Your task to perform on an android device: toggle pop-ups in chrome Image 0: 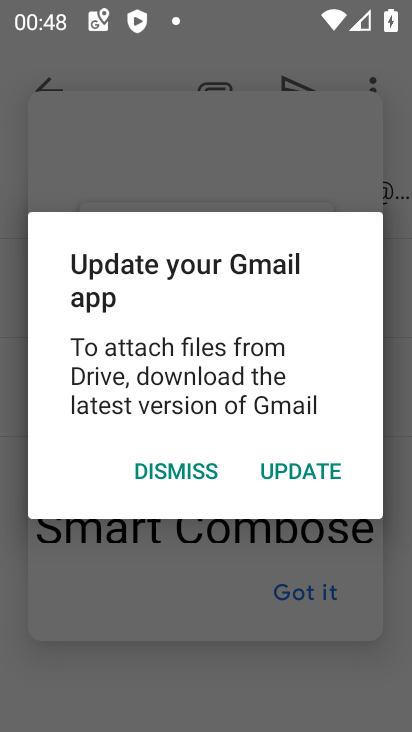
Step 0: press home button
Your task to perform on an android device: toggle pop-ups in chrome Image 1: 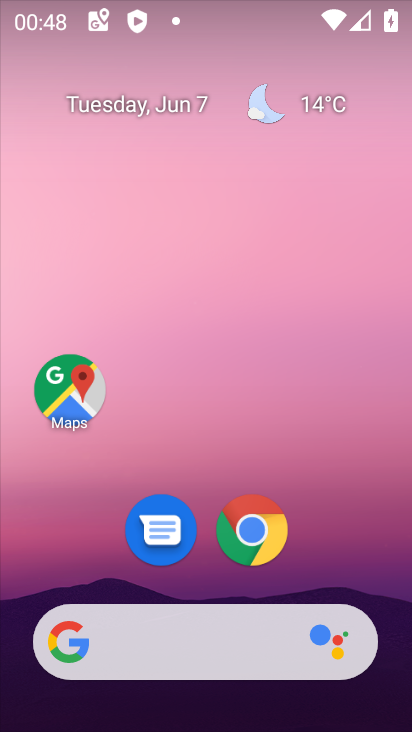
Step 1: click (254, 522)
Your task to perform on an android device: toggle pop-ups in chrome Image 2: 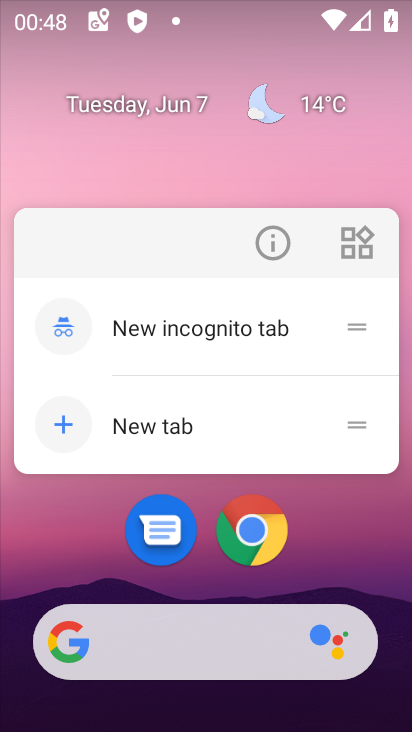
Step 2: click (264, 525)
Your task to perform on an android device: toggle pop-ups in chrome Image 3: 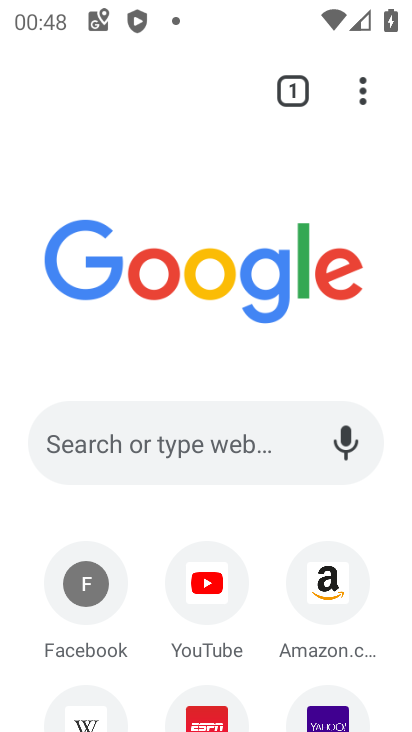
Step 3: click (369, 94)
Your task to perform on an android device: toggle pop-ups in chrome Image 4: 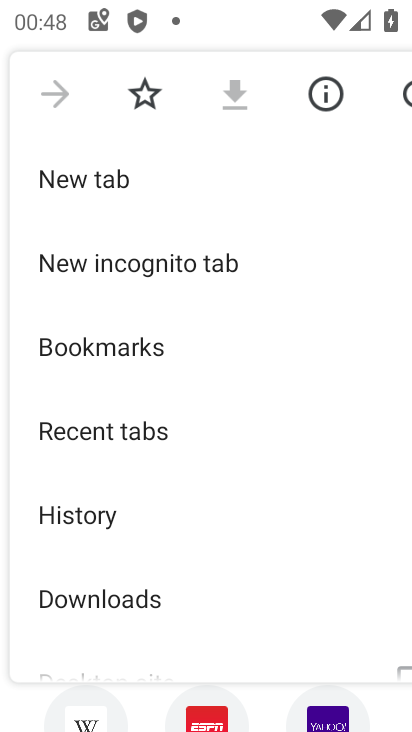
Step 4: drag from (198, 588) to (234, 280)
Your task to perform on an android device: toggle pop-ups in chrome Image 5: 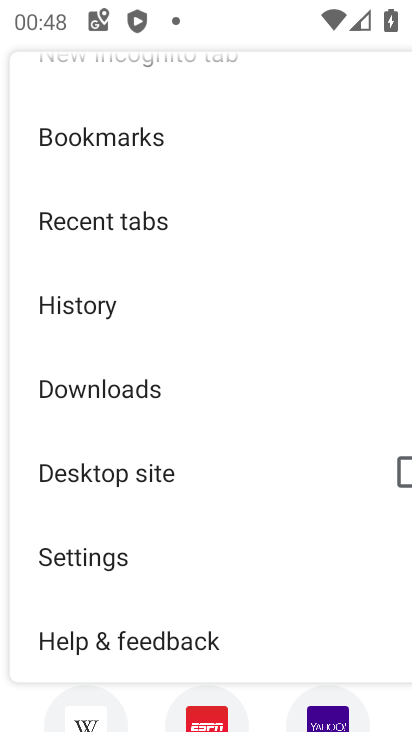
Step 5: click (99, 549)
Your task to perform on an android device: toggle pop-ups in chrome Image 6: 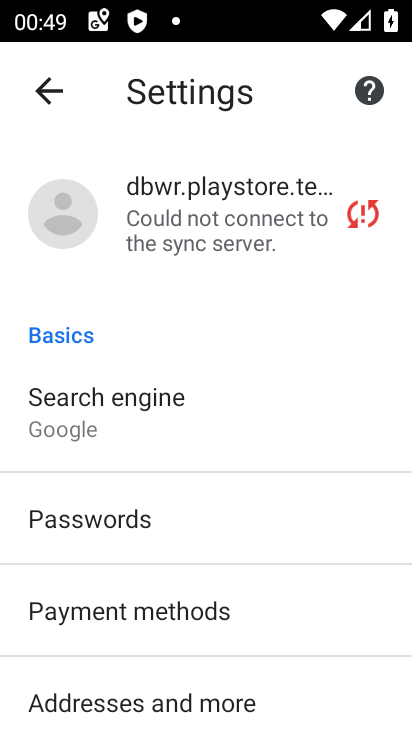
Step 6: drag from (181, 630) to (233, 304)
Your task to perform on an android device: toggle pop-ups in chrome Image 7: 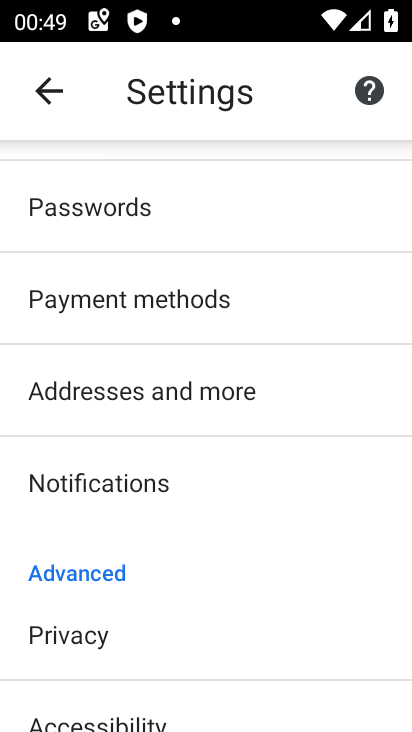
Step 7: drag from (196, 621) to (244, 240)
Your task to perform on an android device: toggle pop-ups in chrome Image 8: 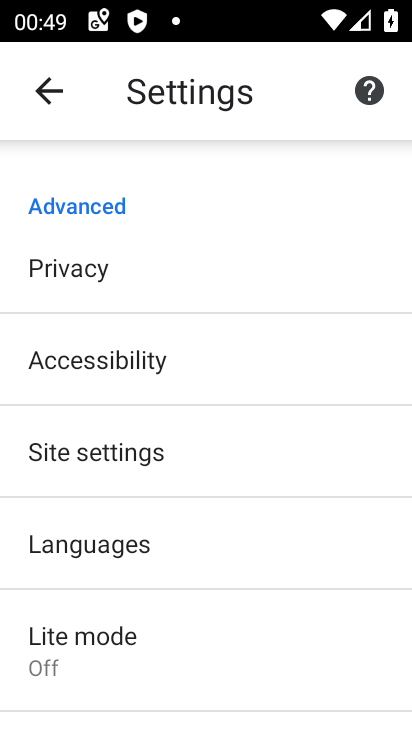
Step 8: click (159, 447)
Your task to perform on an android device: toggle pop-ups in chrome Image 9: 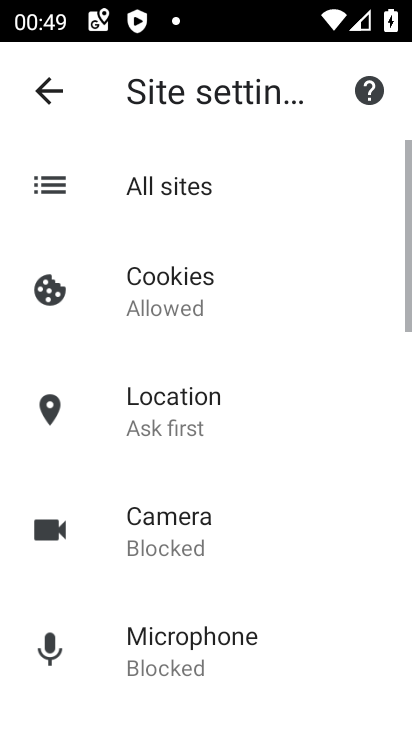
Step 9: drag from (198, 610) to (250, 237)
Your task to perform on an android device: toggle pop-ups in chrome Image 10: 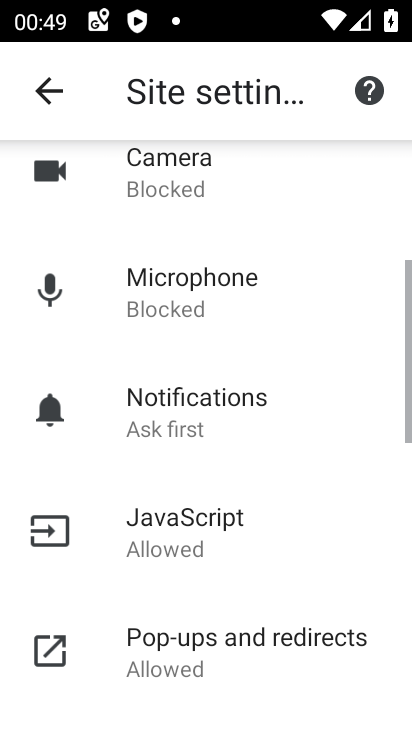
Step 10: click (190, 627)
Your task to perform on an android device: toggle pop-ups in chrome Image 11: 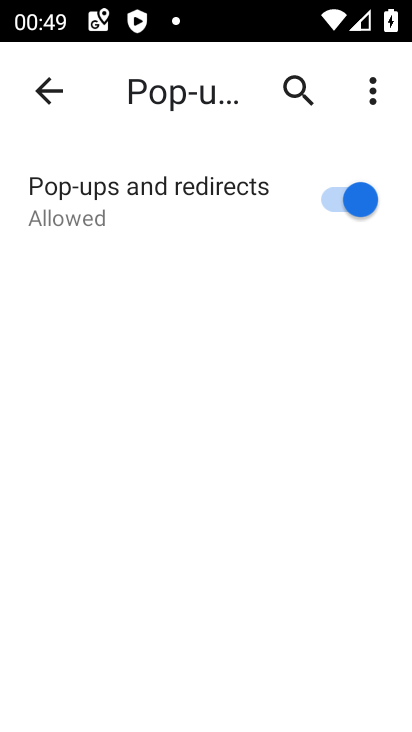
Step 11: click (333, 201)
Your task to perform on an android device: toggle pop-ups in chrome Image 12: 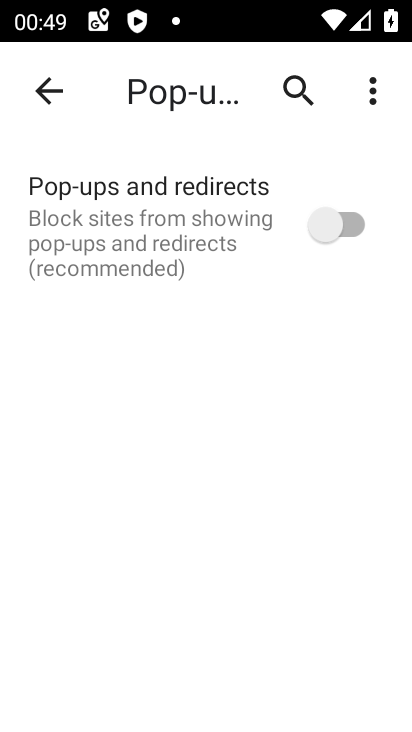
Step 12: click (319, 228)
Your task to perform on an android device: toggle pop-ups in chrome Image 13: 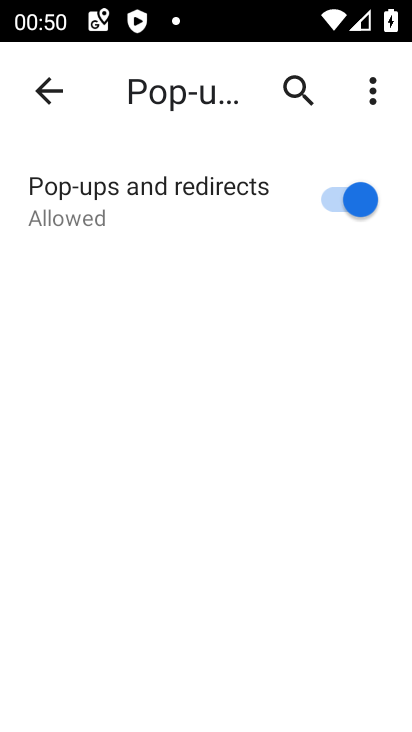
Step 13: task complete